Your task to perform on an android device: Go to Yahoo.com Image 0: 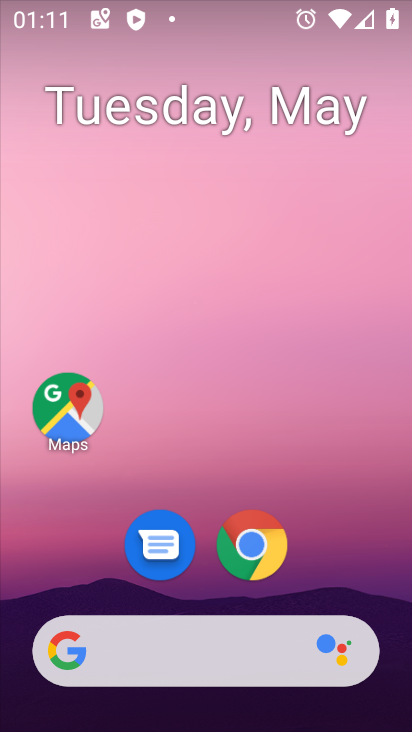
Step 0: click (266, 549)
Your task to perform on an android device: Go to Yahoo.com Image 1: 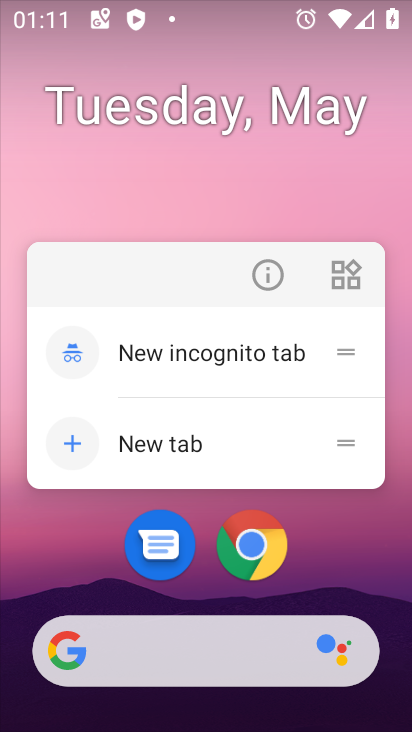
Step 1: click (265, 545)
Your task to perform on an android device: Go to Yahoo.com Image 2: 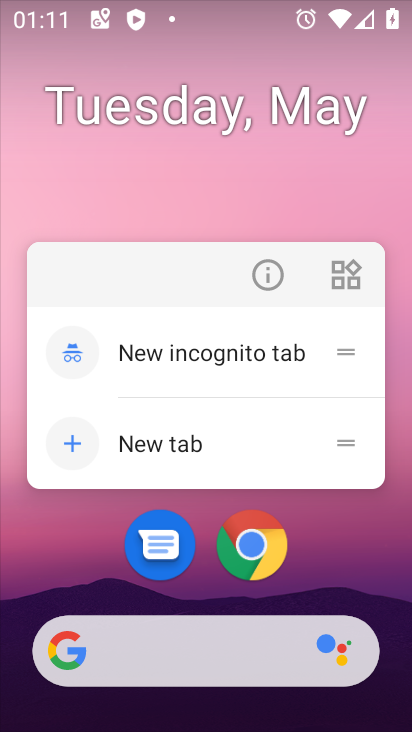
Step 2: click (250, 540)
Your task to perform on an android device: Go to Yahoo.com Image 3: 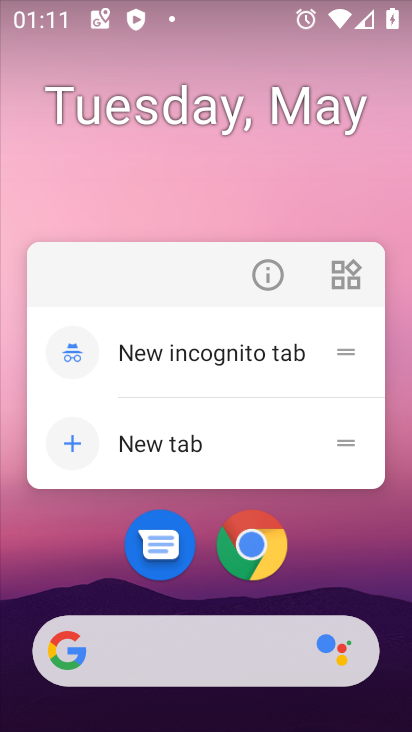
Step 3: click (250, 540)
Your task to perform on an android device: Go to Yahoo.com Image 4: 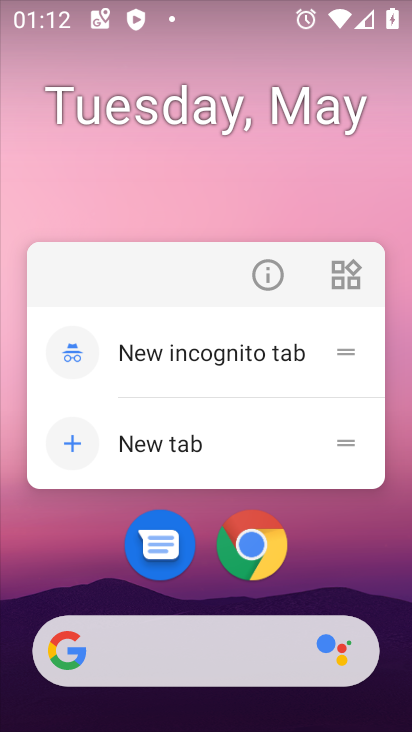
Step 4: click (254, 543)
Your task to perform on an android device: Go to Yahoo.com Image 5: 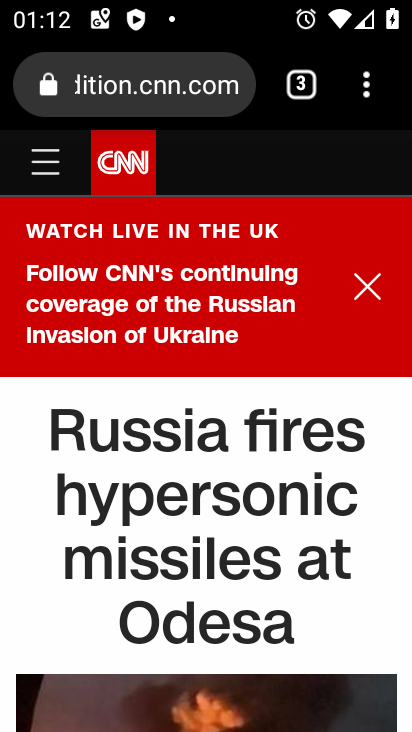
Step 5: click (157, 84)
Your task to perform on an android device: Go to Yahoo.com Image 6: 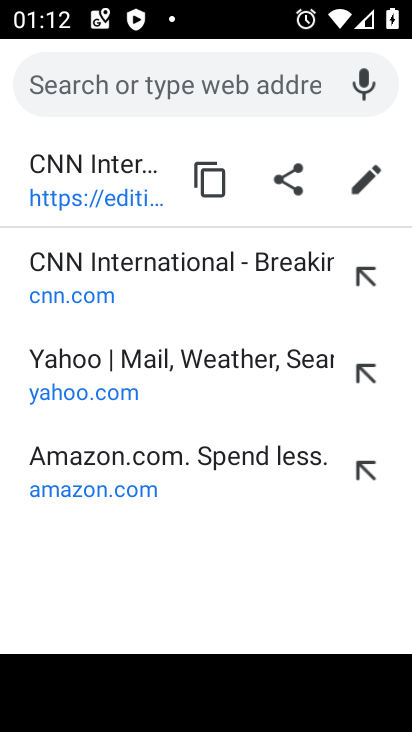
Step 6: type "yahoo.com"
Your task to perform on an android device: Go to Yahoo.com Image 7: 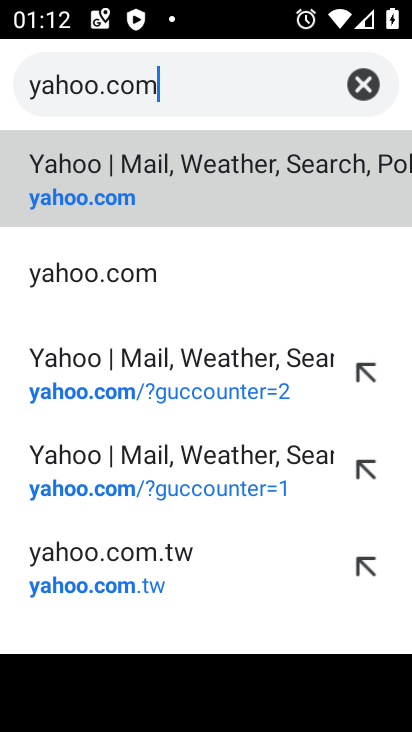
Step 7: click (116, 187)
Your task to perform on an android device: Go to Yahoo.com Image 8: 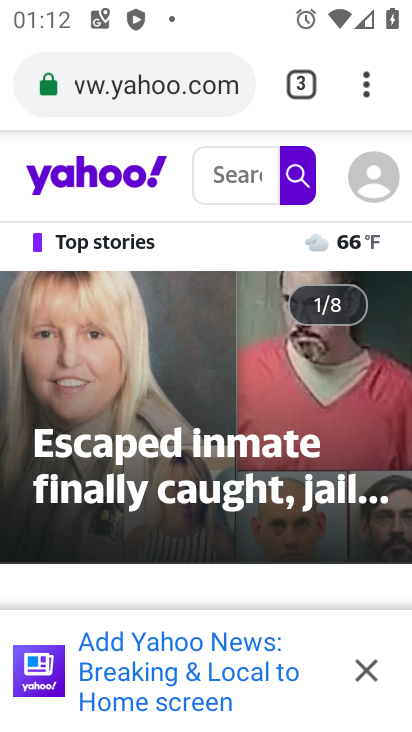
Step 8: task complete